Your task to perform on an android device: Go to eBay Image 0: 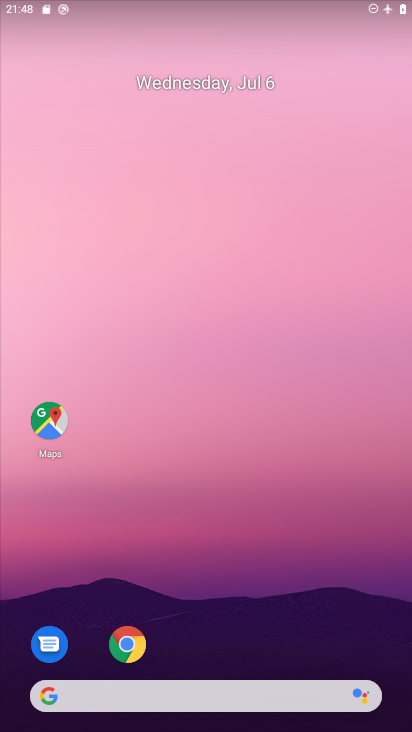
Step 0: click (116, 646)
Your task to perform on an android device: Go to eBay Image 1: 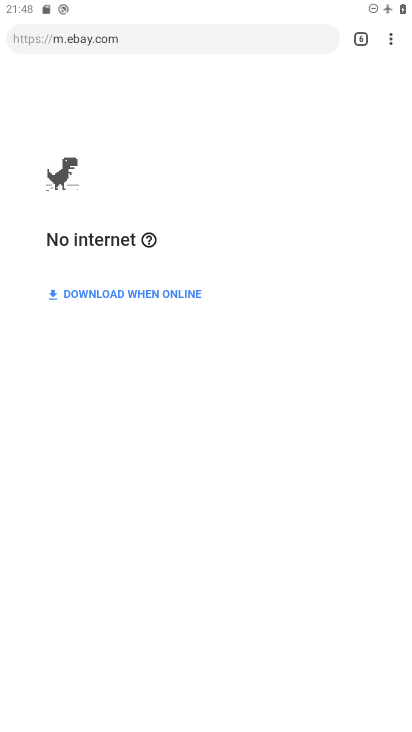
Step 1: click (357, 46)
Your task to perform on an android device: Go to eBay Image 2: 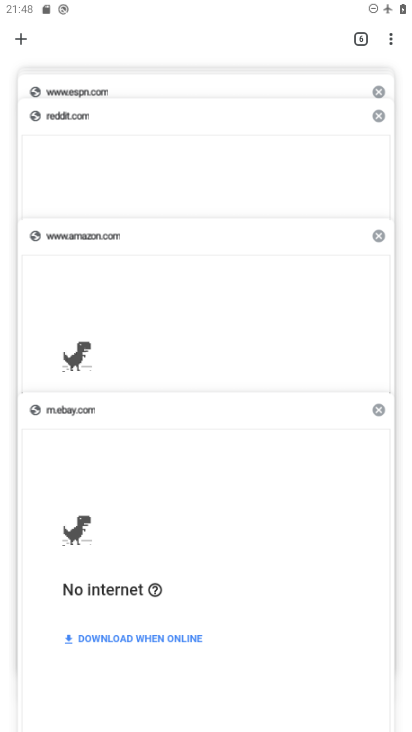
Step 2: click (21, 40)
Your task to perform on an android device: Go to eBay Image 3: 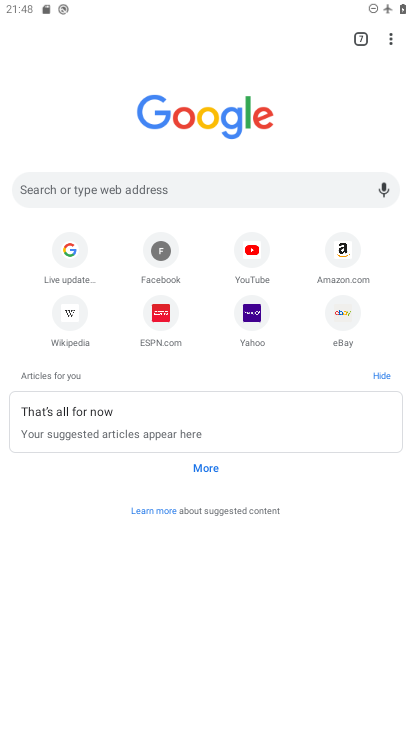
Step 3: click (332, 310)
Your task to perform on an android device: Go to eBay Image 4: 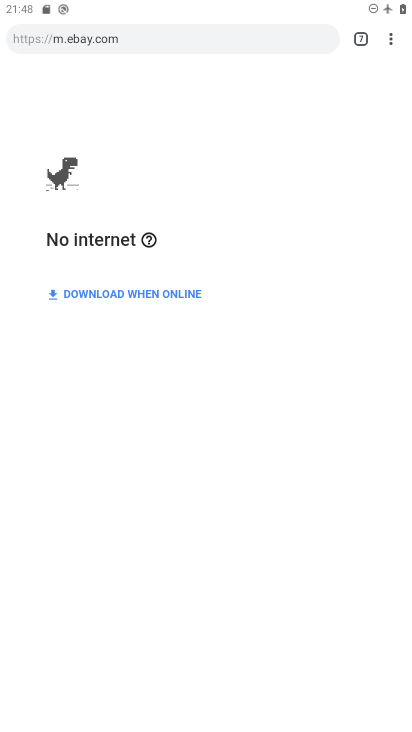
Step 4: task complete